Your task to perform on an android device: What's the news in the Philippines? Image 0: 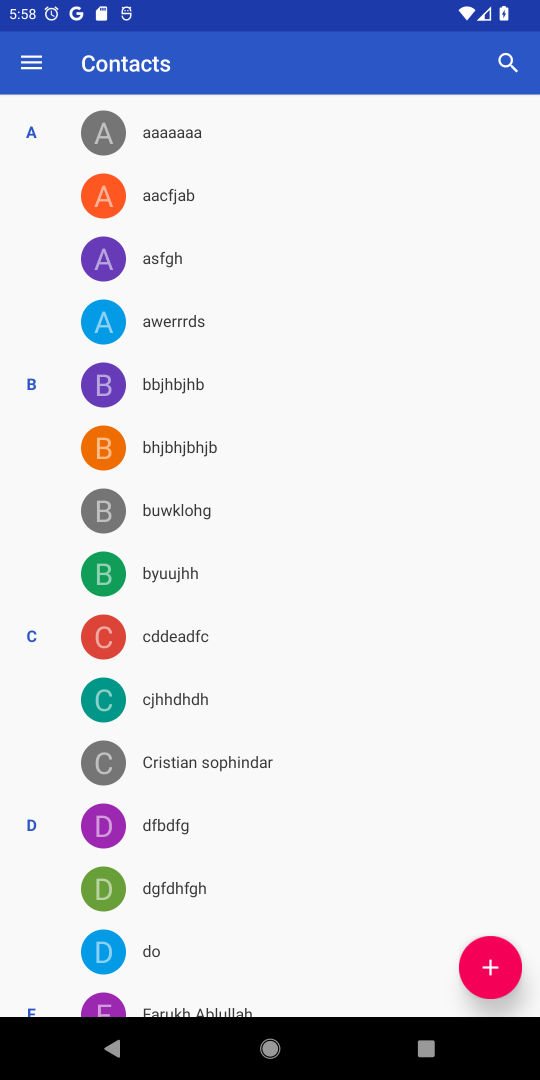
Step 0: press home button
Your task to perform on an android device: What's the news in the Philippines? Image 1: 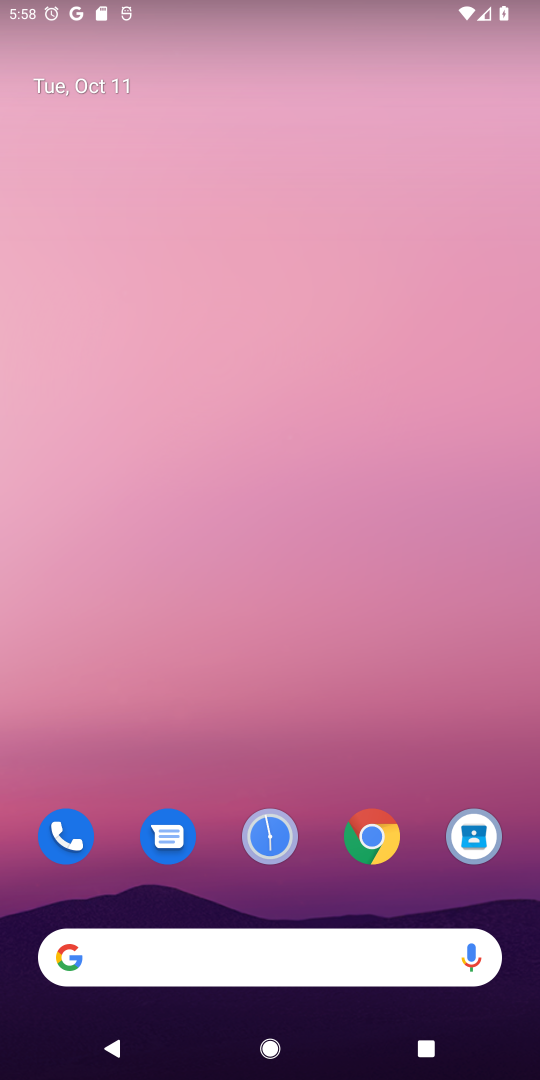
Step 1: click (293, 973)
Your task to perform on an android device: What's the news in the Philippines? Image 2: 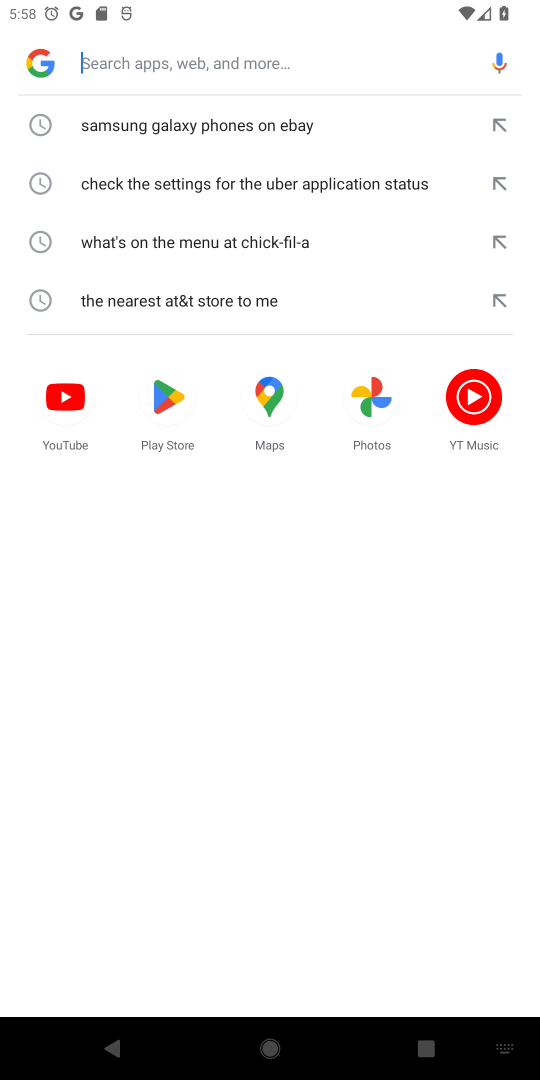
Step 2: type "the Philippines?"
Your task to perform on an android device: What's the news in the Philippines? Image 3: 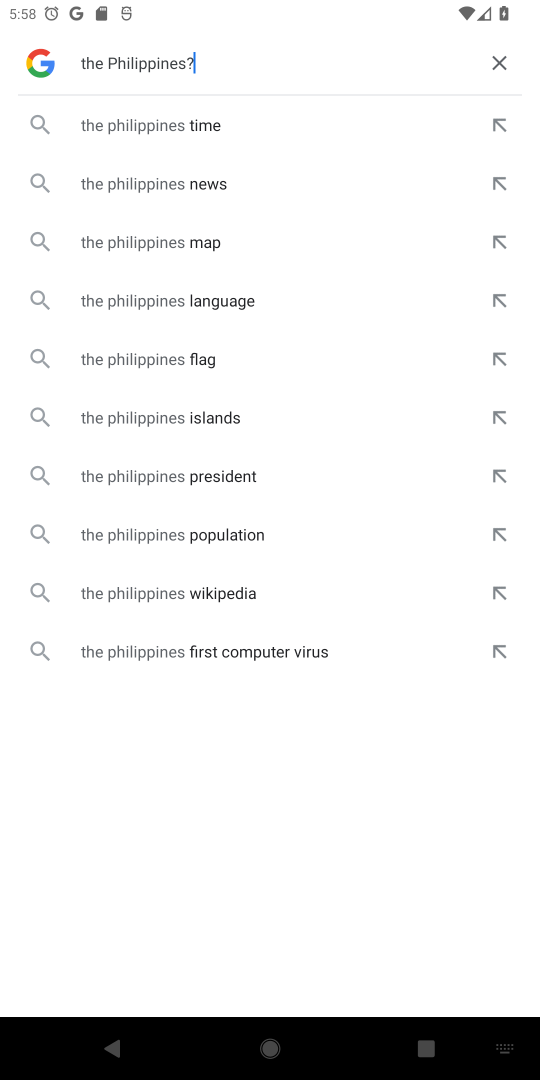
Step 3: click (144, 117)
Your task to perform on an android device: What's the news in the Philippines? Image 4: 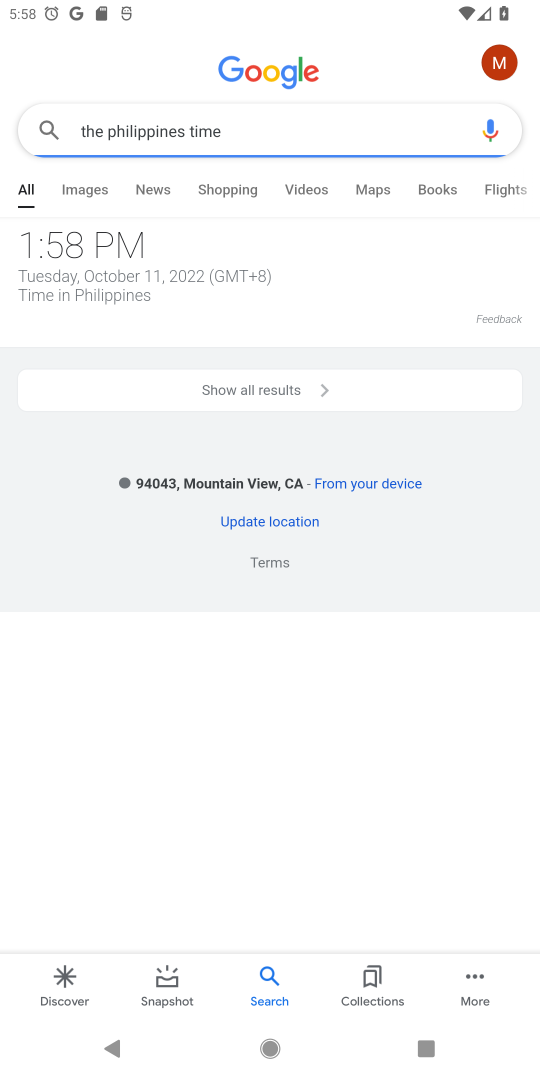
Step 4: task complete